Your task to perform on an android device: toggle data saver in the chrome app Image 0: 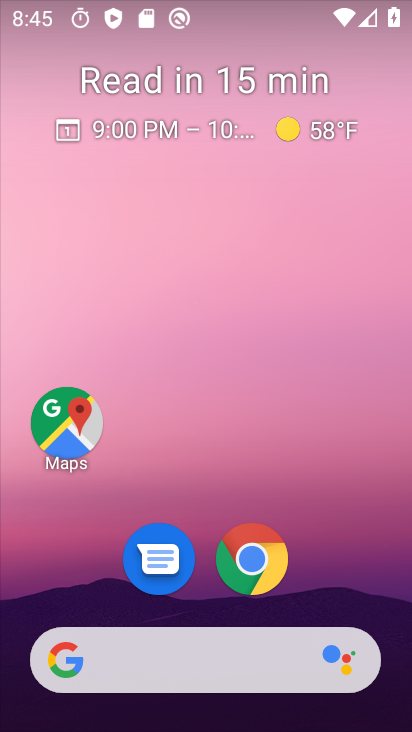
Step 0: click (241, 558)
Your task to perform on an android device: toggle data saver in the chrome app Image 1: 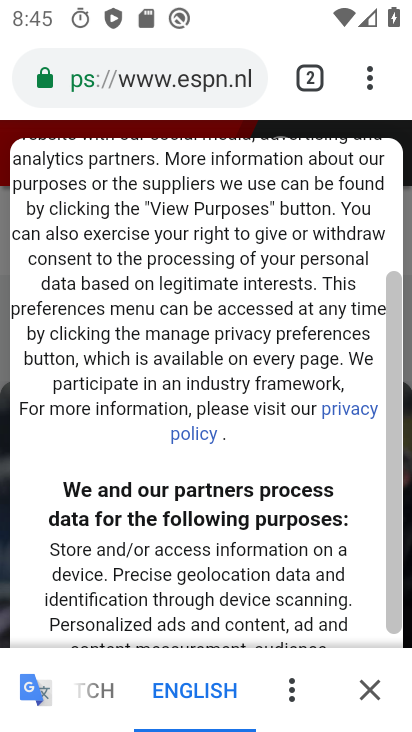
Step 1: click (364, 68)
Your task to perform on an android device: toggle data saver in the chrome app Image 2: 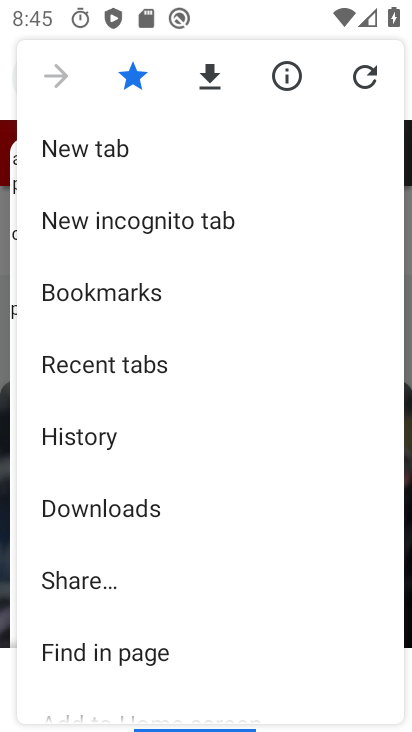
Step 2: drag from (87, 484) to (133, 287)
Your task to perform on an android device: toggle data saver in the chrome app Image 3: 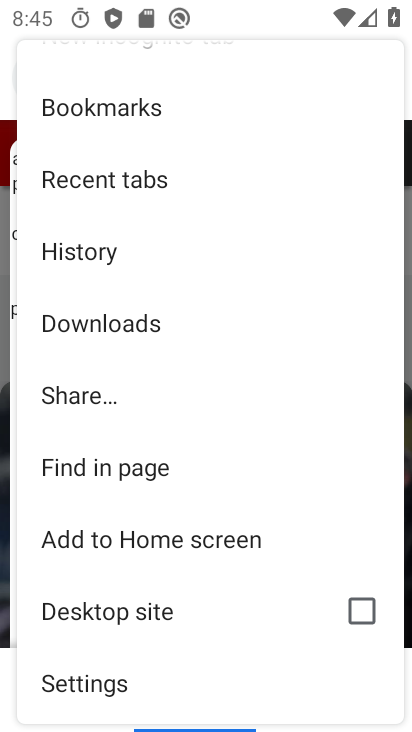
Step 3: click (90, 682)
Your task to perform on an android device: toggle data saver in the chrome app Image 4: 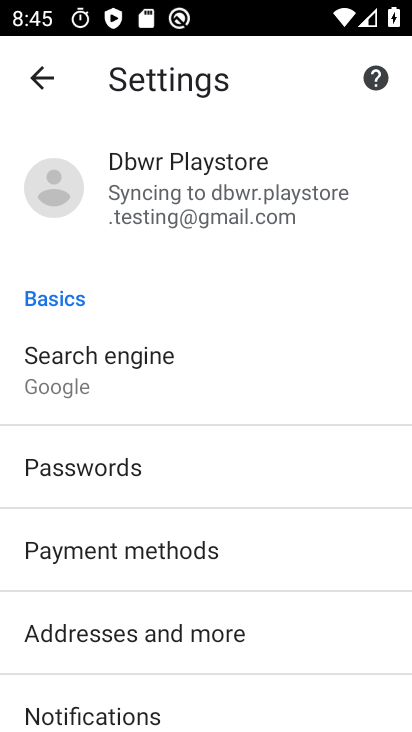
Step 4: drag from (110, 429) to (161, 246)
Your task to perform on an android device: toggle data saver in the chrome app Image 5: 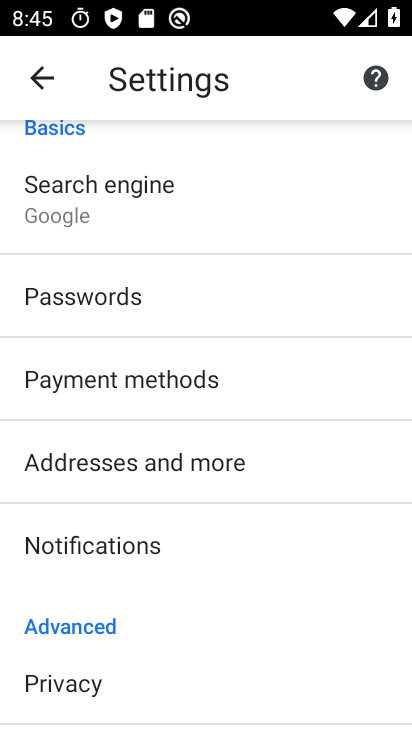
Step 5: drag from (94, 496) to (178, 194)
Your task to perform on an android device: toggle data saver in the chrome app Image 6: 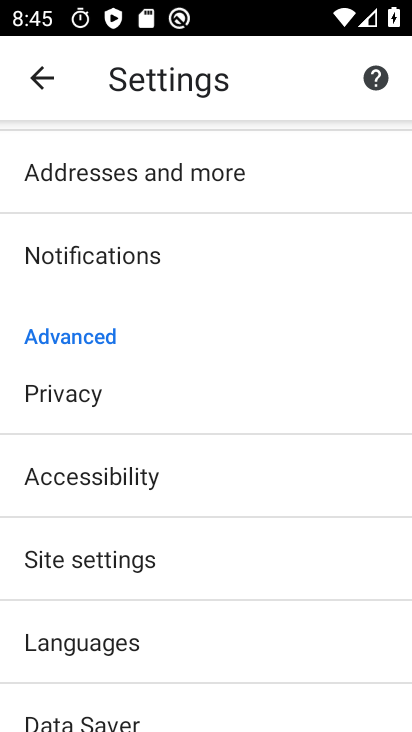
Step 6: drag from (96, 520) to (181, 265)
Your task to perform on an android device: toggle data saver in the chrome app Image 7: 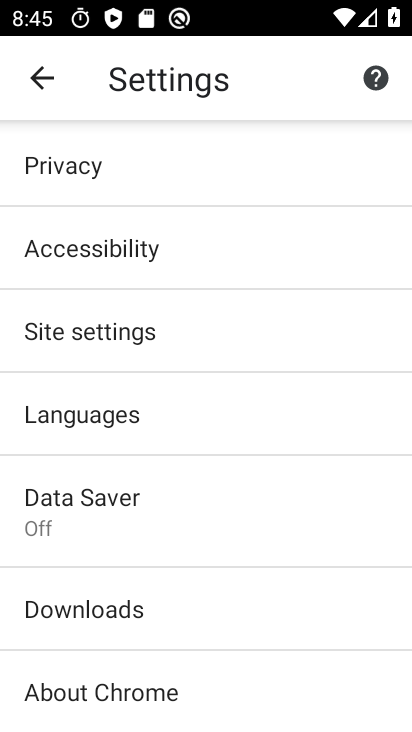
Step 7: click (73, 511)
Your task to perform on an android device: toggle data saver in the chrome app Image 8: 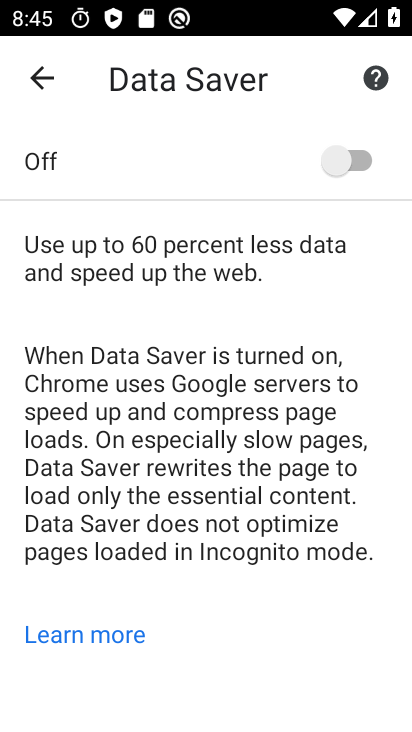
Step 8: click (356, 160)
Your task to perform on an android device: toggle data saver in the chrome app Image 9: 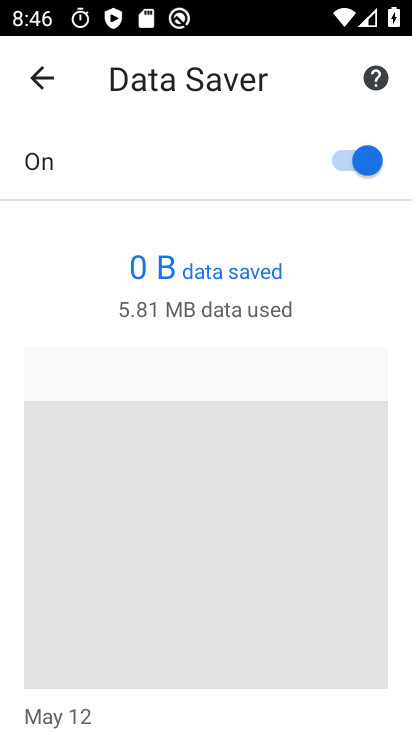
Step 9: task complete